Your task to perform on an android device: turn off location history Image 0: 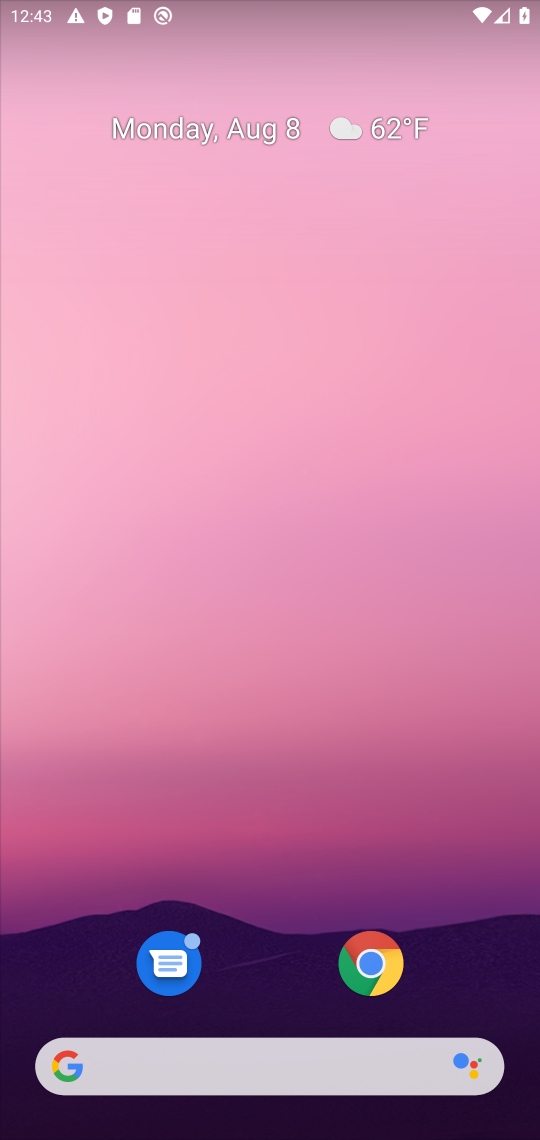
Step 0: drag from (450, 989) to (288, 53)
Your task to perform on an android device: turn off location history Image 1: 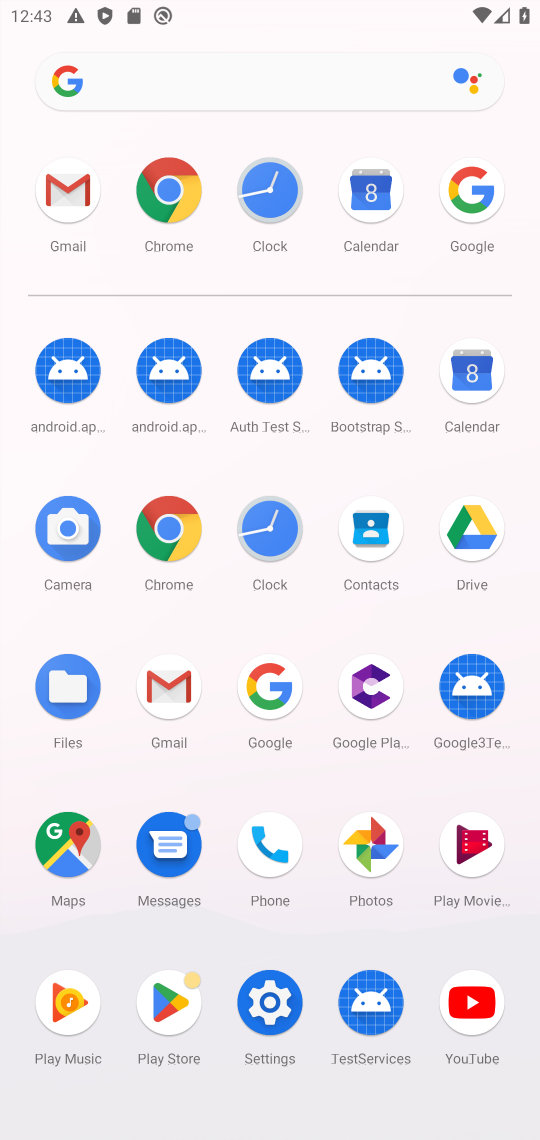
Step 1: click (282, 1020)
Your task to perform on an android device: turn off location history Image 2: 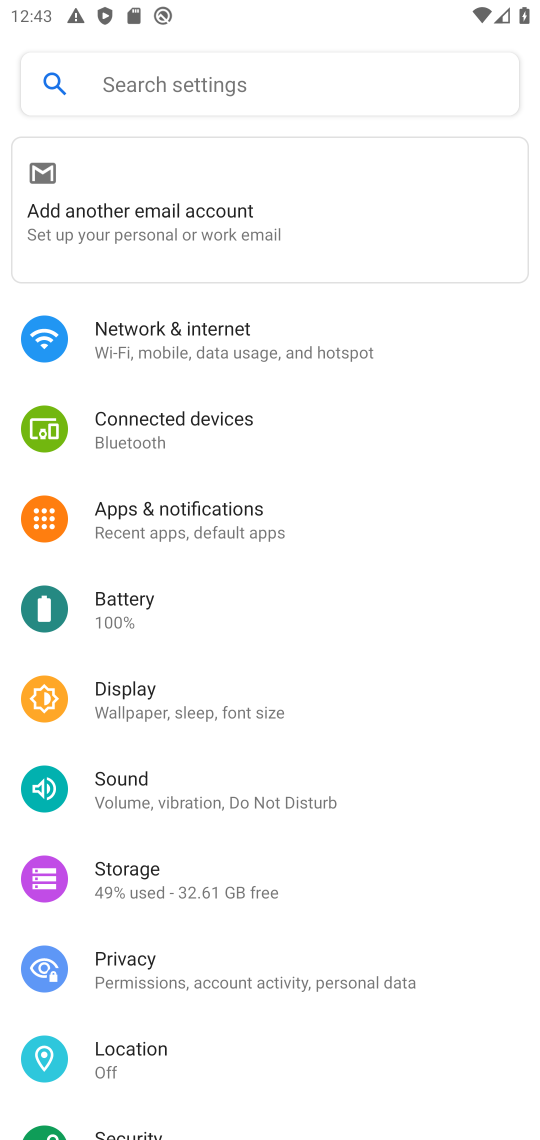
Step 2: click (113, 1044)
Your task to perform on an android device: turn off location history Image 3: 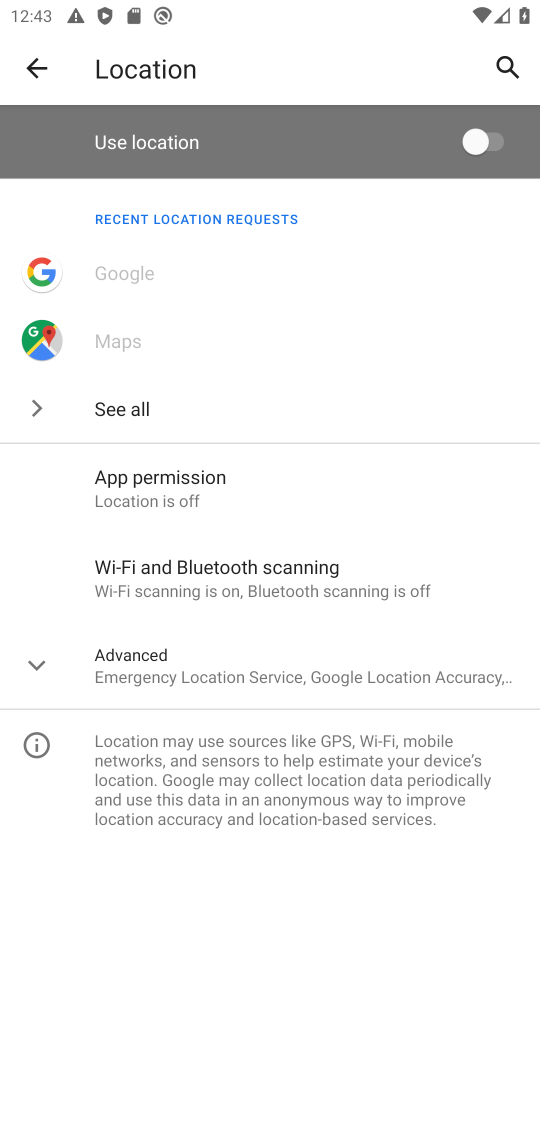
Step 3: click (152, 654)
Your task to perform on an android device: turn off location history Image 4: 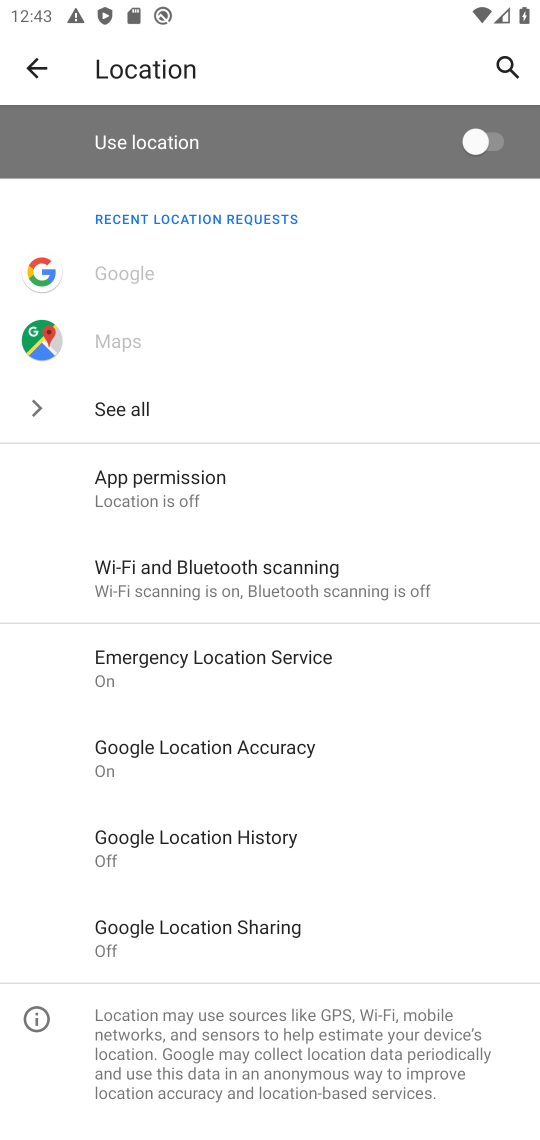
Step 4: click (223, 834)
Your task to perform on an android device: turn off location history Image 5: 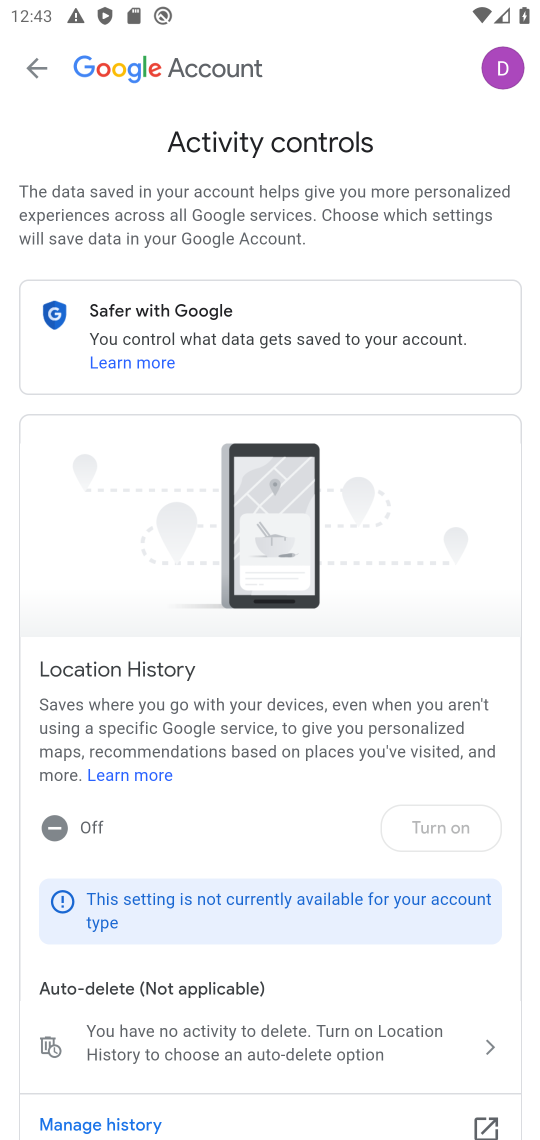
Step 5: task complete